Your task to perform on an android device: Where can I buy a nice beach chair? Image 0: 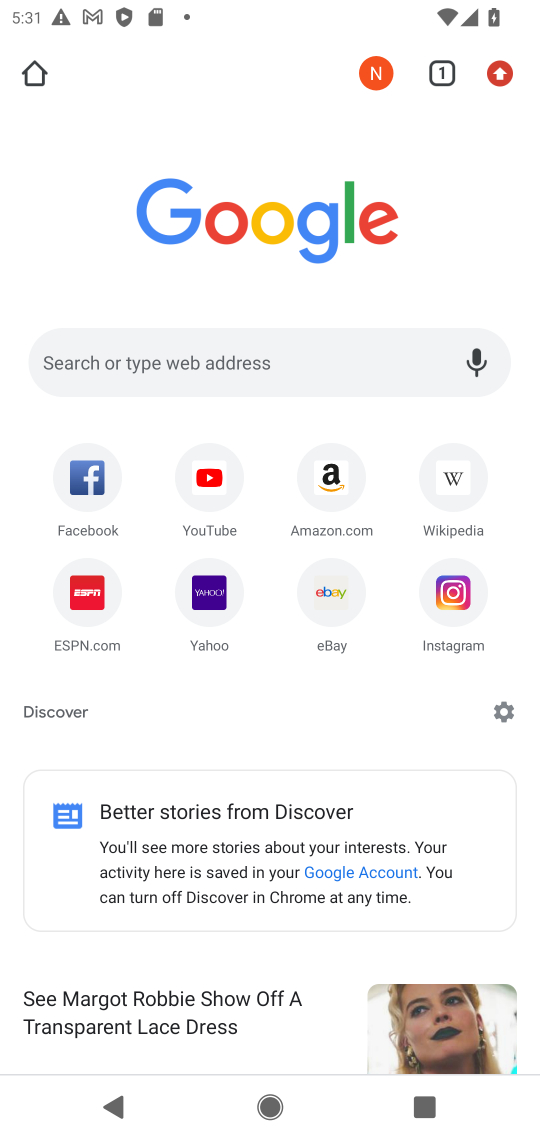
Step 0: press home button
Your task to perform on an android device: Where can I buy a nice beach chair? Image 1: 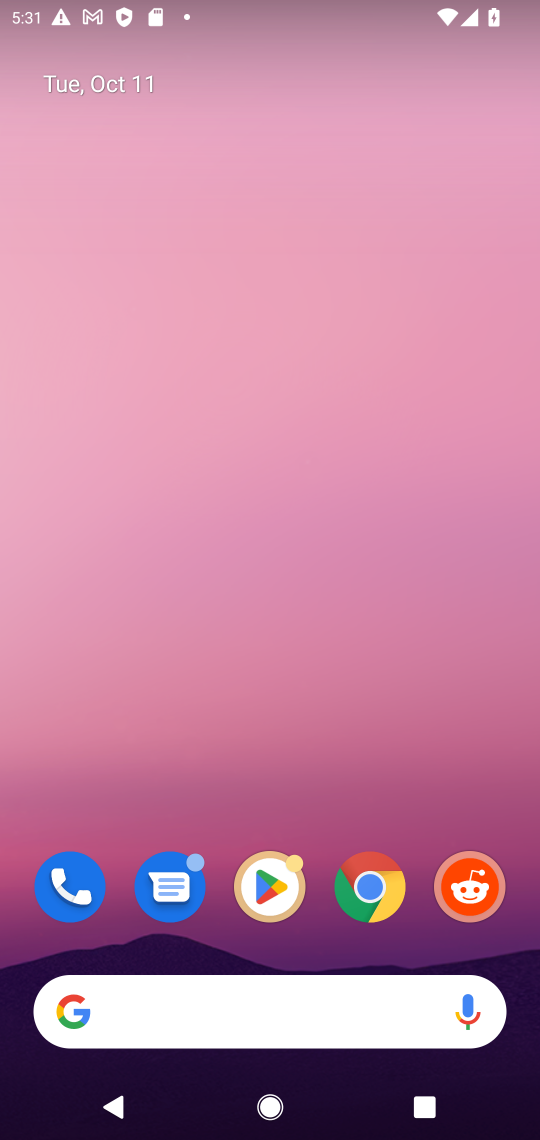
Step 1: click (282, 1003)
Your task to perform on an android device: Where can I buy a nice beach chair? Image 2: 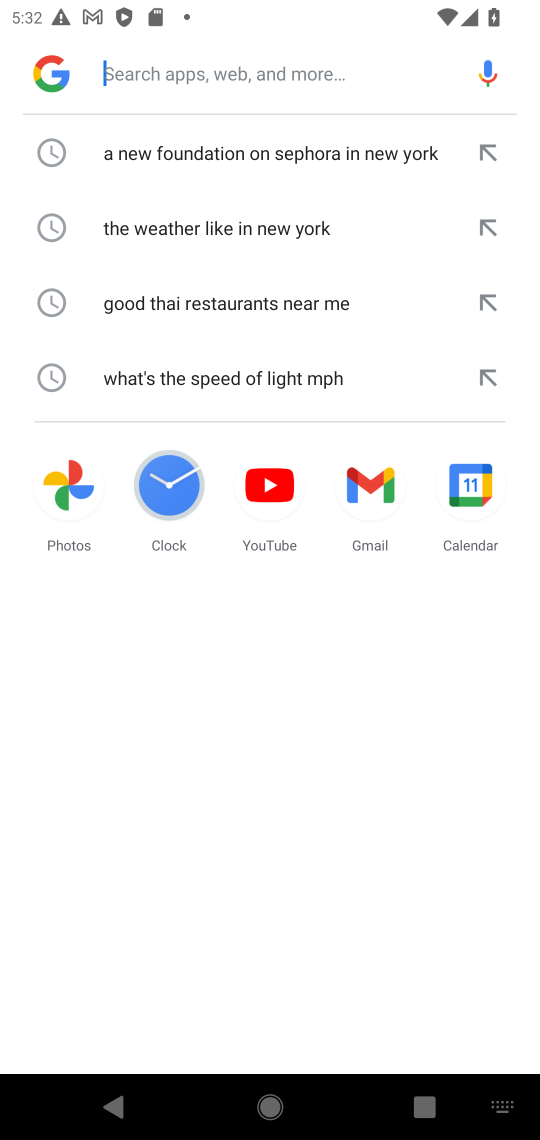
Step 2: type "Where can I buy a nice beach chair?"
Your task to perform on an android device: Where can I buy a nice beach chair? Image 3: 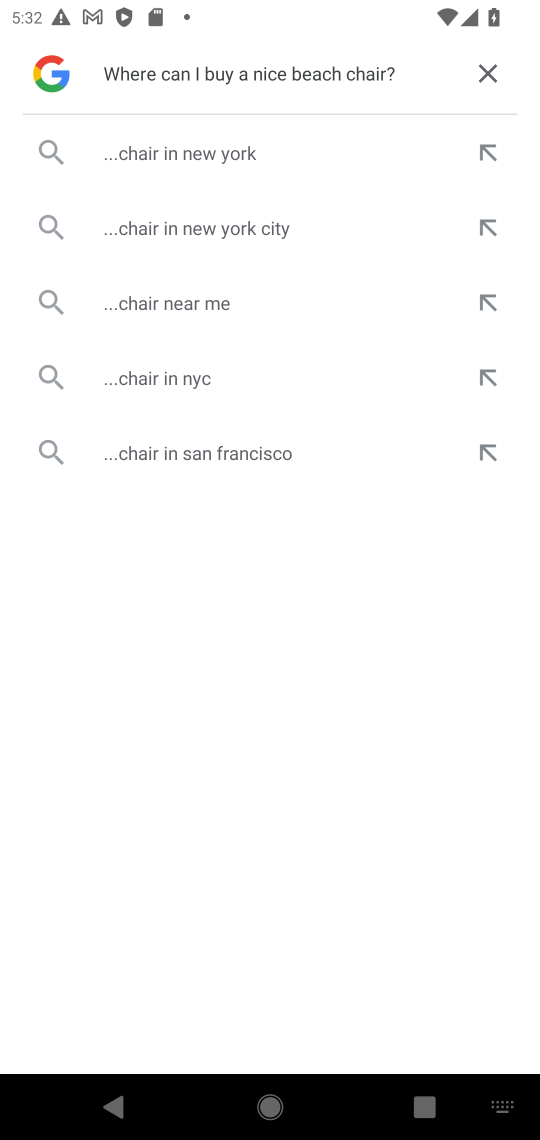
Step 3: click (203, 162)
Your task to perform on an android device: Where can I buy a nice beach chair? Image 4: 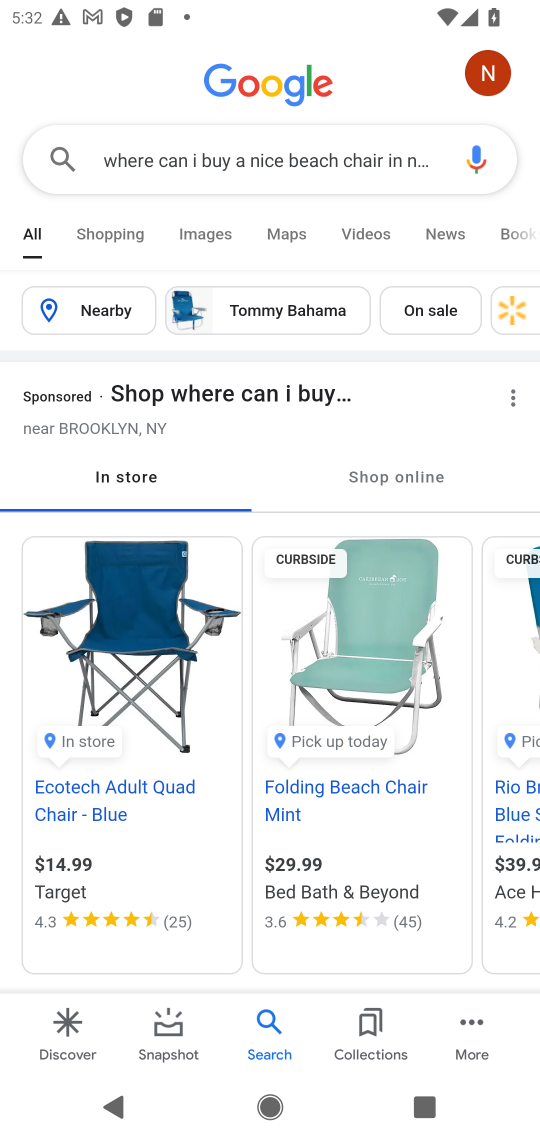
Step 4: task complete